Your task to perform on an android device: Turn off the flashlight Image 0: 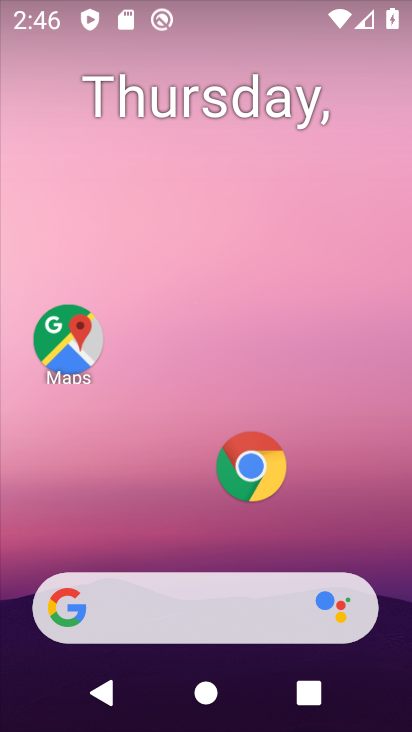
Step 0: drag from (197, 547) to (199, 160)
Your task to perform on an android device: Turn off the flashlight Image 1: 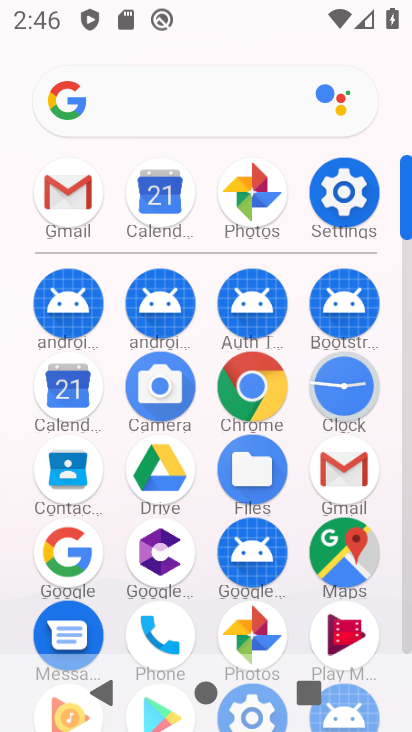
Step 1: click (359, 191)
Your task to perform on an android device: Turn off the flashlight Image 2: 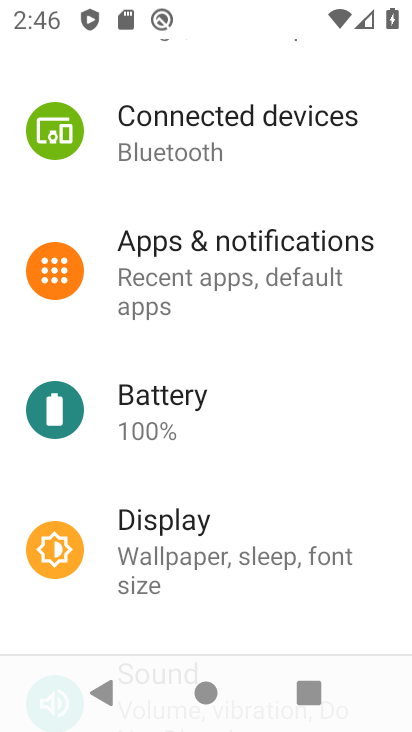
Step 2: task complete